Your task to perform on an android device: toggle javascript in the chrome app Image 0: 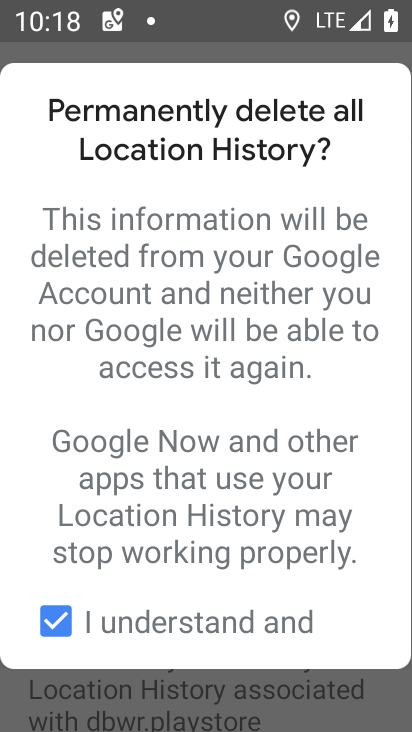
Step 0: press home button
Your task to perform on an android device: toggle javascript in the chrome app Image 1: 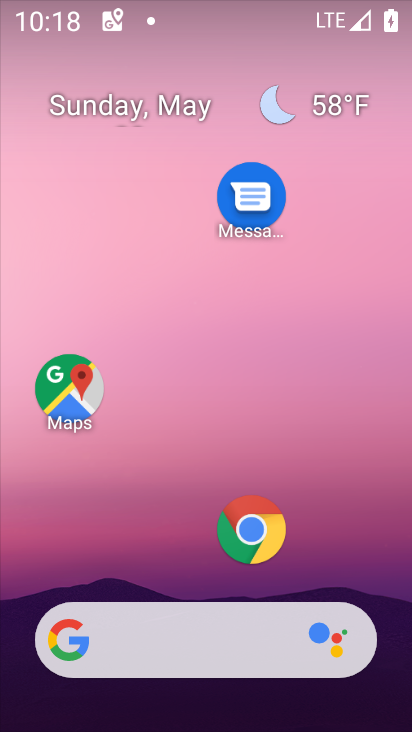
Step 1: click (270, 549)
Your task to perform on an android device: toggle javascript in the chrome app Image 2: 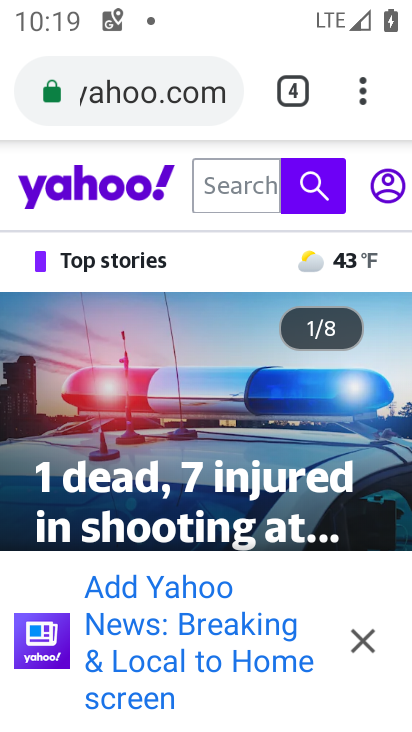
Step 2: click (359, 642)
Your task to perform on an android device: toggle javascript in the chrome app Image 3: 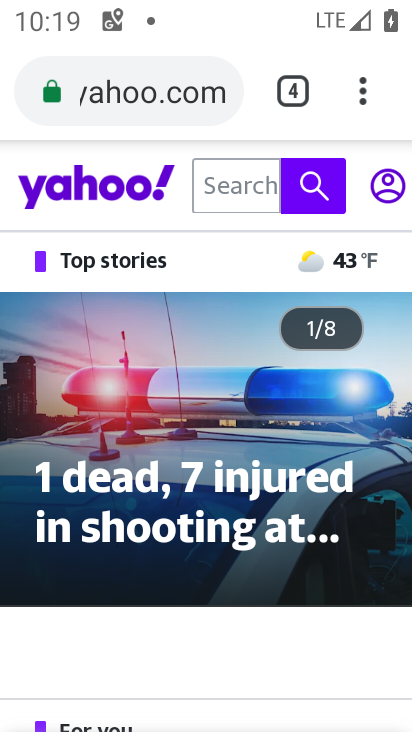
Step 3: click (367, 94)
Your task to perform on an android device: toggle javascript in the chrome app Image 4: 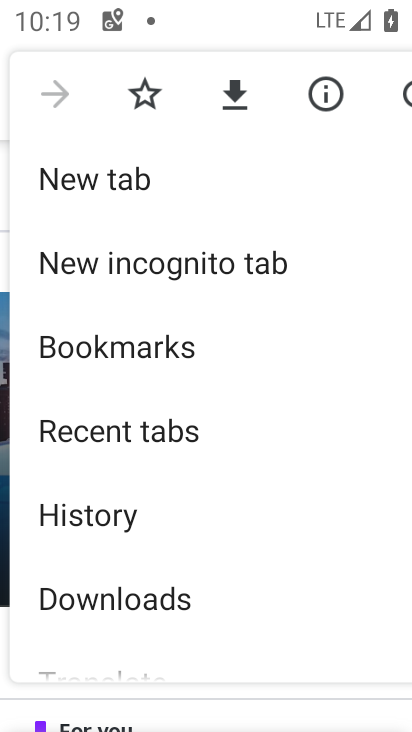
Step 4: drag from (134, 563) to (169, 334)
Your task to perform on an android device: toggle javascript in the chrome app Image 5: 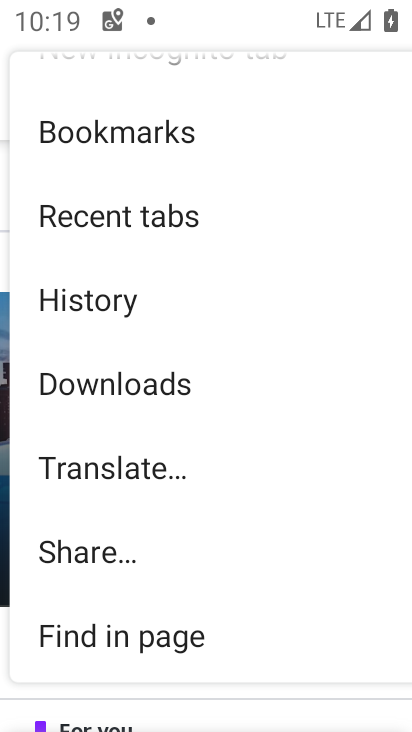
Step 5: drag from (113, 580) to (130, 261)
Your task to perform on an android device: toggle javascript in the chrome app Image 6: 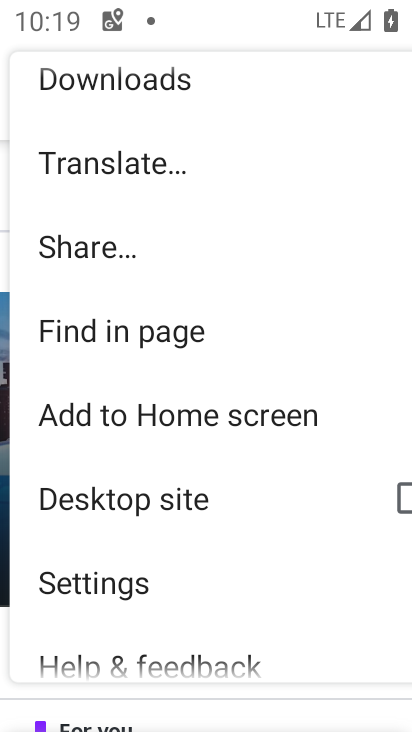
Step 6: click (76, 597)
Your task to perform on an android device: toggle javascript in the chrome app Image 7: 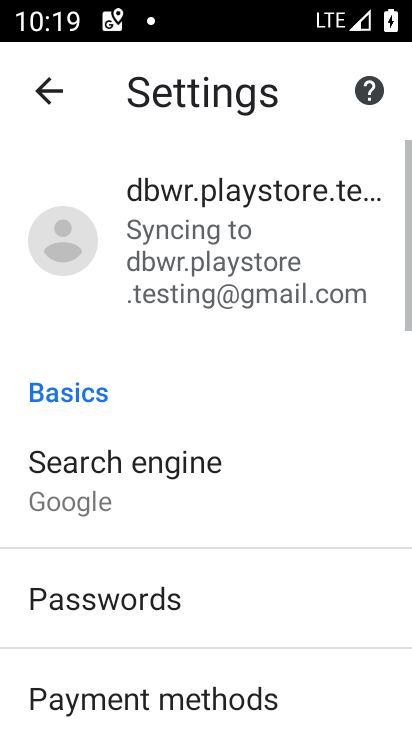
Step 7: drag from (147, 578) to (205, 276)
Your task to perform on an android device: toggle javascript in the chrome app Image 8: 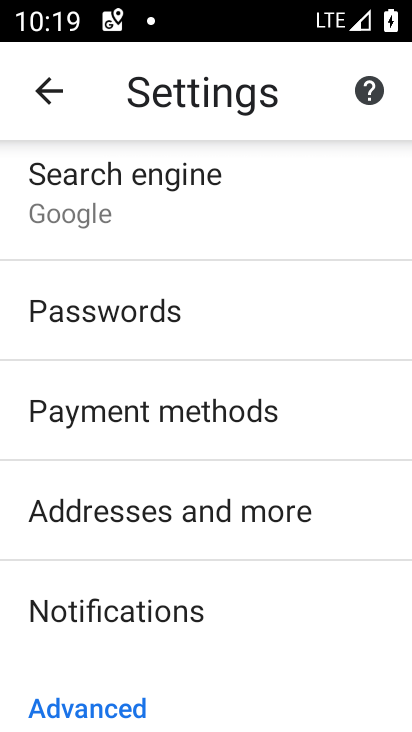
Step 8: drag from (206, 555) to (272, 229)
Your task to perform on an android device: toggle javascript in the chrome app Image 9: 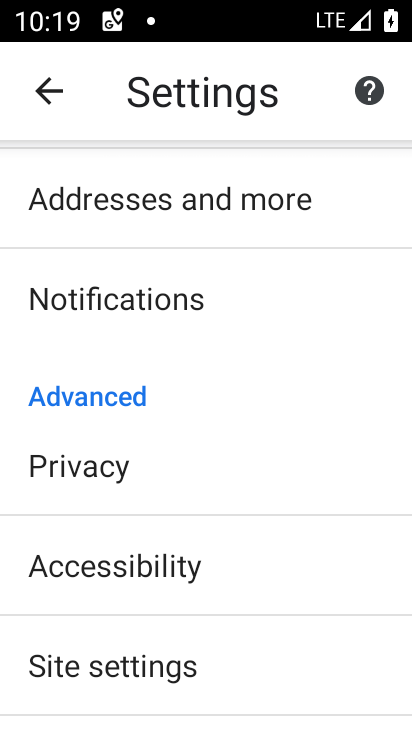
Step 9: click (140, 670)
Your task to perform on an android device: toggle javascript in the chrome app Image 10: 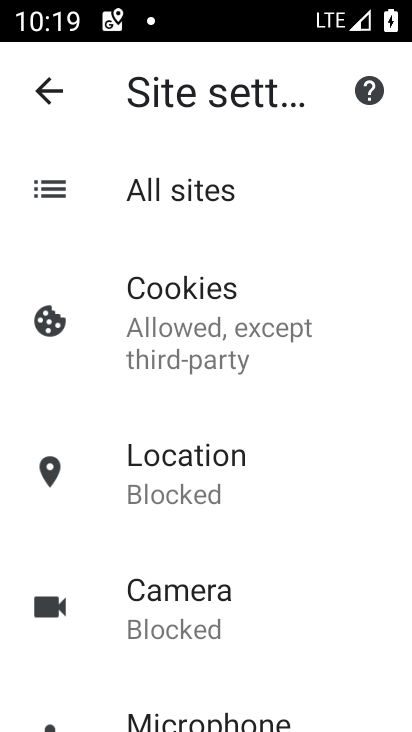
Step 10: drag from (211, 536) to (272, 211)
Your task to perform on an android device: toggle javascript in the chrome app Image 11: 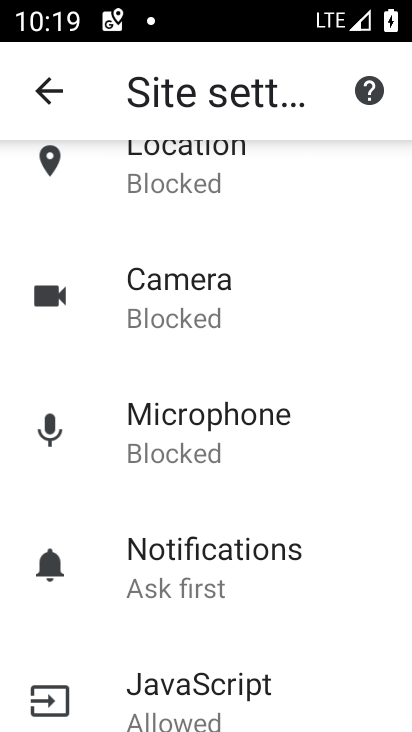
Step 11: drag from (249, 563) to (281, 363)
Your task to perform on an android device: toggle javascript in the chrome app Image 12: 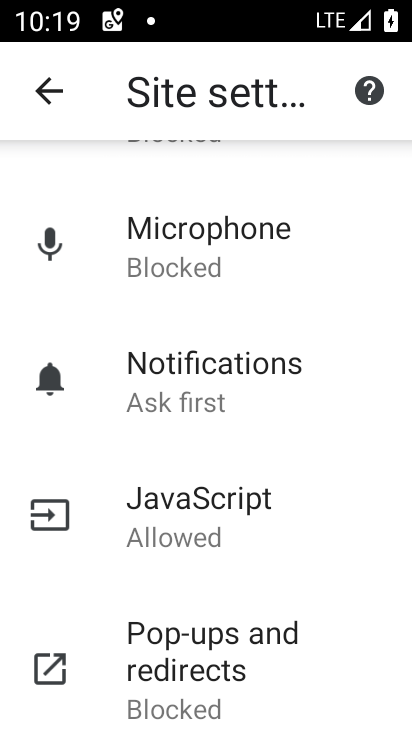
Step 12: click (211, 513)
Your task to perform on an android device: toggle javascript in the chrome app Image 13: 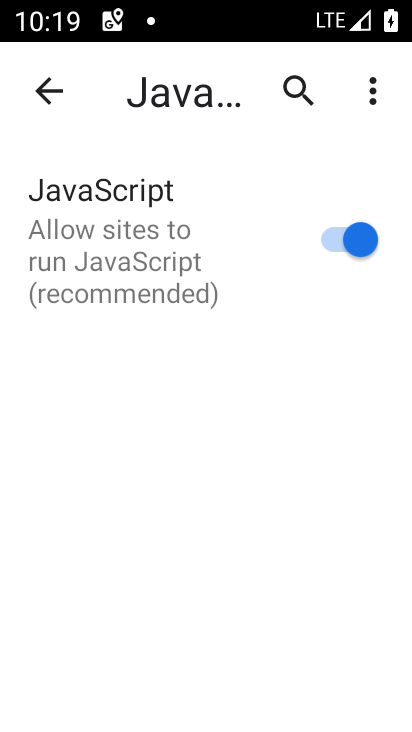
Step 13: click (323, 251)
Your task to perform on an android device: toggle javascript in the chrome app Image 14: 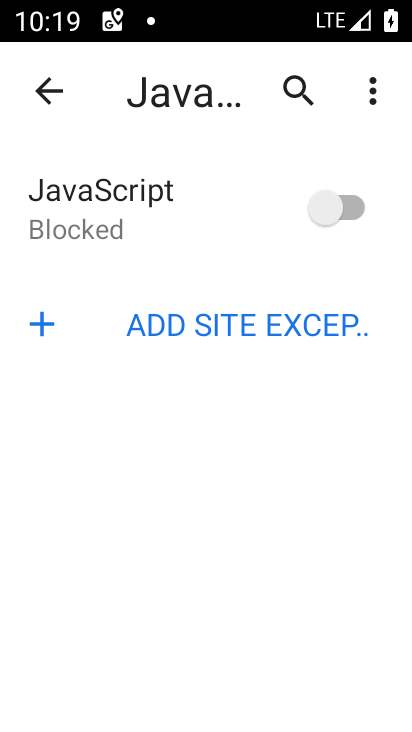
Step 14: task complete